Your task to perform on an android device: open chrome privacy settings Image 0: 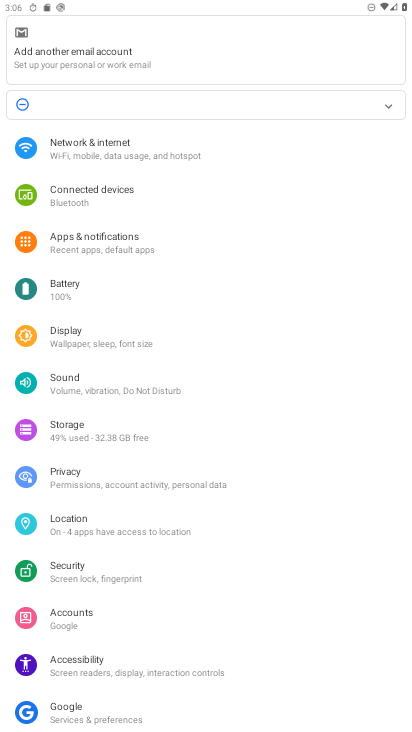
Step 0: press home button
Your task to perform on an android device: open chrome privacy settings Image 1: 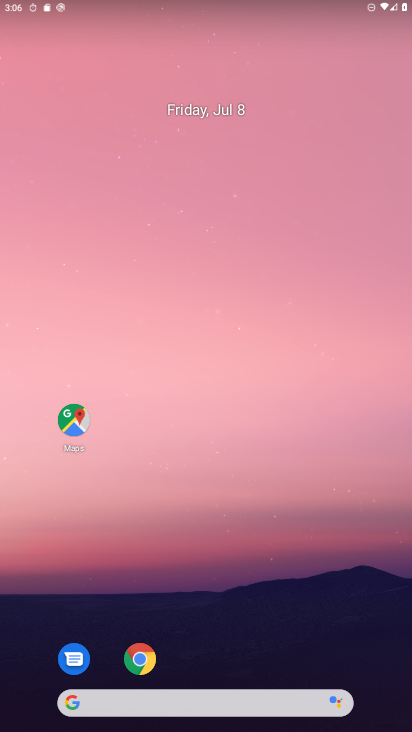
Step 1: click (144, 658)
Your task to perform on an android device: open chrome privacy settings Image 2: 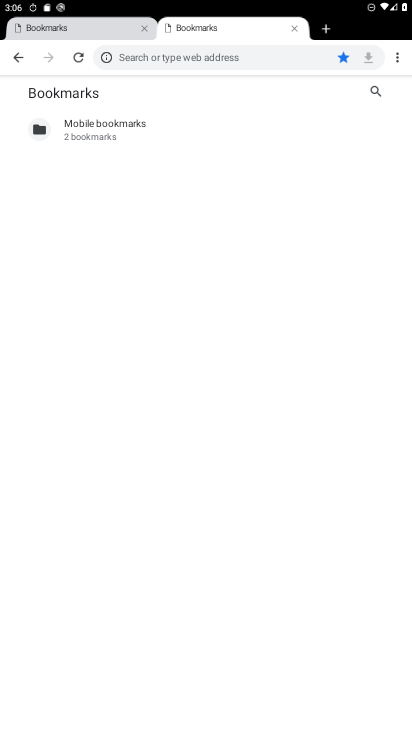
Step 2: click (397, 55)
Your task to perform on an android device: open chrome privacy settings Image 3: 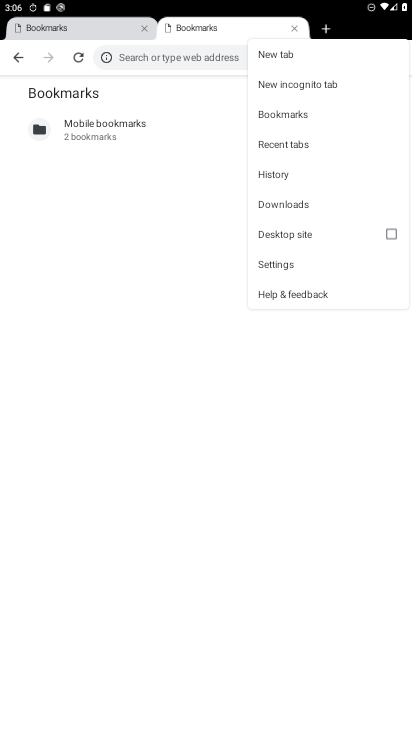
Step 3: click (308, 258)
Your task to perform on an android device: open chrome privacy settings Image 4: 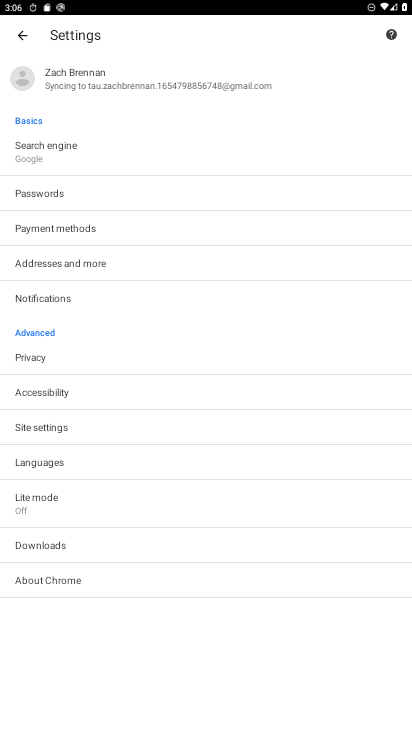
Step 4: click (58, 358)
Your task to perform on an android device: open chrome privacy settings Image 5: 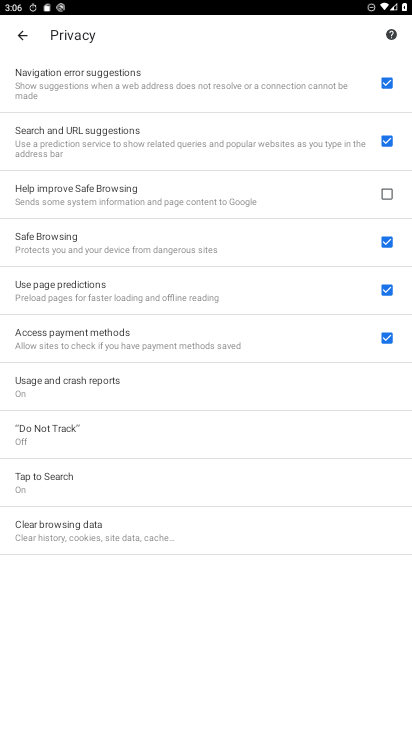
Step 5: task complete